Your task to perform on an android device: delete the emails in spam in the gmail app Image 0: 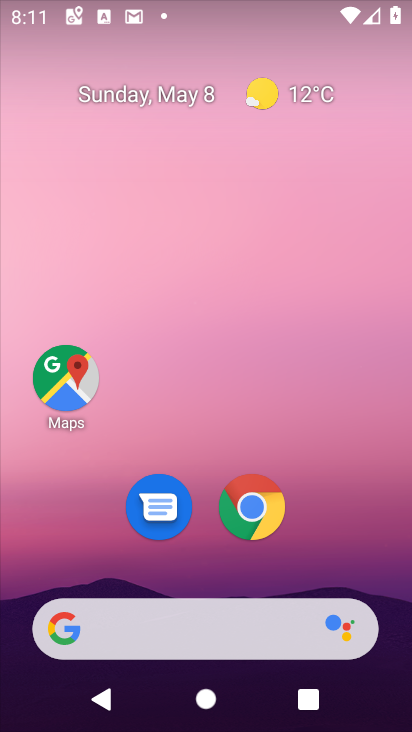
Step 0: drag from (170, 687) to (158, 30)
Your task to perform on an android device: delete the emails in spam in the gmail app Image 1: 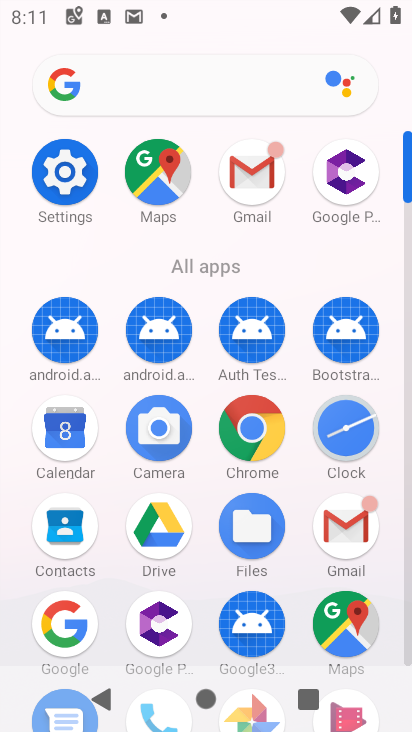
Step 1: click (245, 158)
Your task to perform on an android device: delete the emails in spam in the gmail app Image 2: 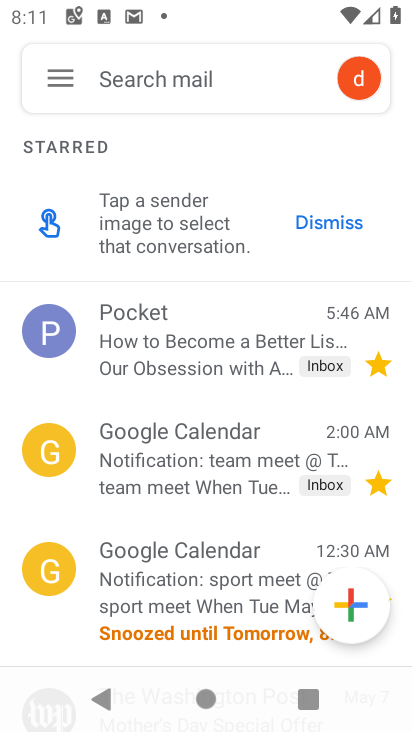
Step 2: click (52, 81)
Your task to perform on an android device: delete the emails in spam in the gmail app Image 3: 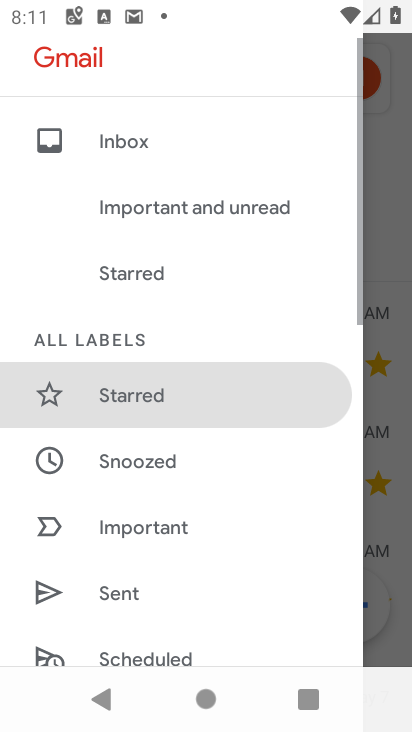
Step 3: drag from (197, 635) to (135, 86)
Your task to perform on an android device: delete the emails in spam in the gmail app Image 4: 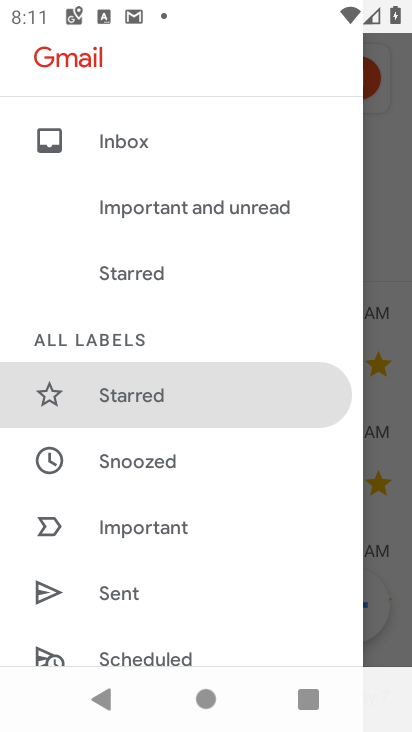
Step 4: drag from (241, 599) to (191, 2)
Your task to perform on an android device: delete the emails in spam in the gmail app Image 5: 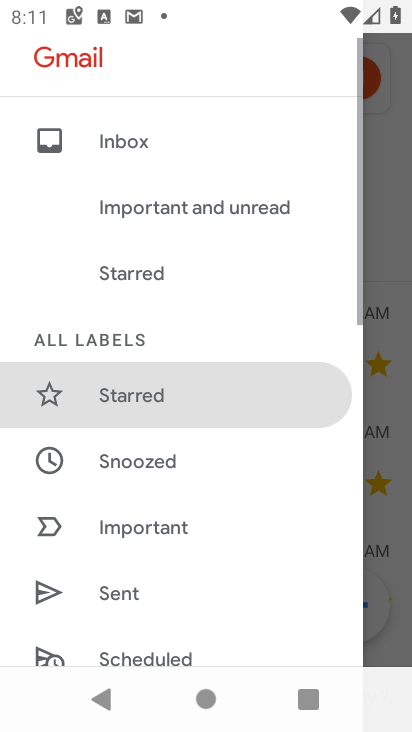
Step 5: drag from (182, 589) to (138, 26)
Your task to perform on an android device: delete the emails in spam in the gmail app Image 6: 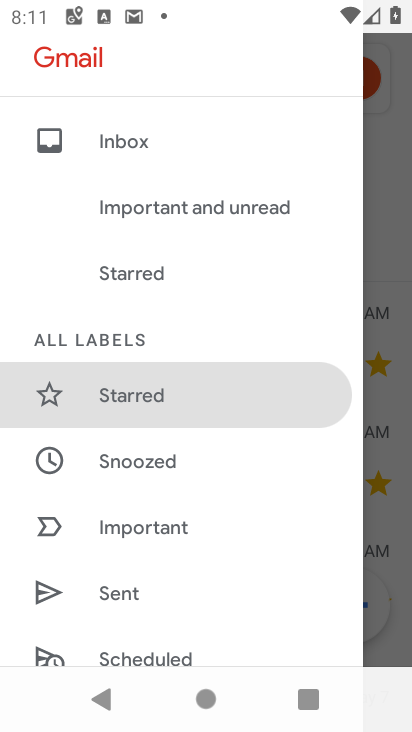
Step 6: drag from (223, 625) to (145, 8)
Your task to perform on an android device: delete the emails in spam in the gmail app Image 7: 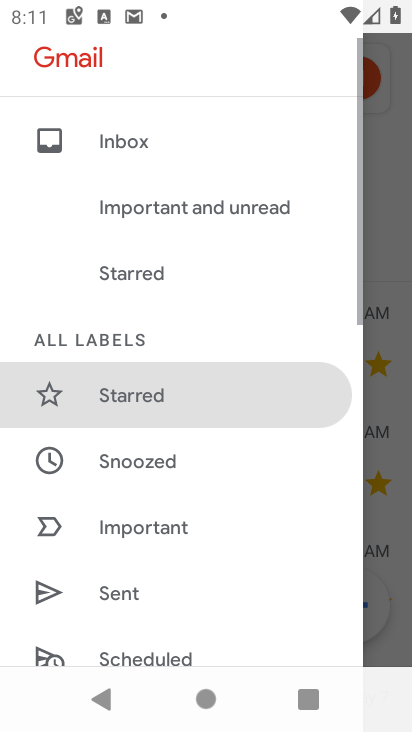
Step 7: drag from (179, 646) to (218, 13)
Your task to perform on an android device: delete the emails in spam in the gmail app Image 8: 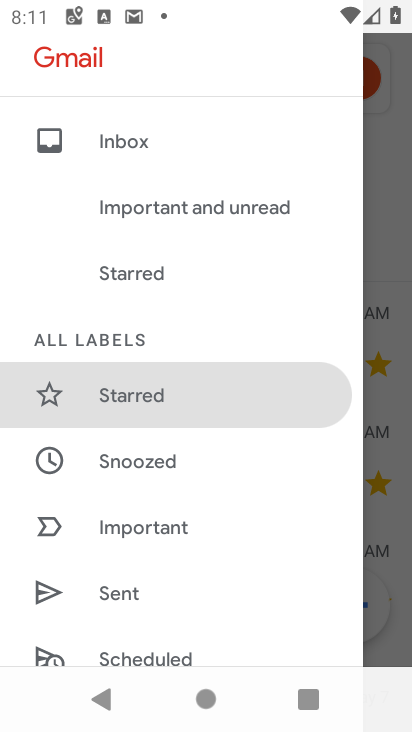
Step 8: drag from (221, 639) to (198, 29)
Your task to perform on an android device: delete the emails in spam in the gmail app Image 9: 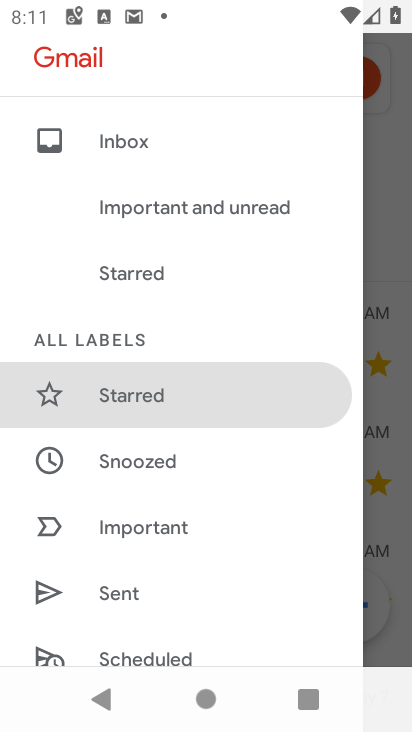
Step 9: drag from (78, 573) to (46, 42)
Your task to perform on an android device: delete the emails in spam in the gmail app Image 10: 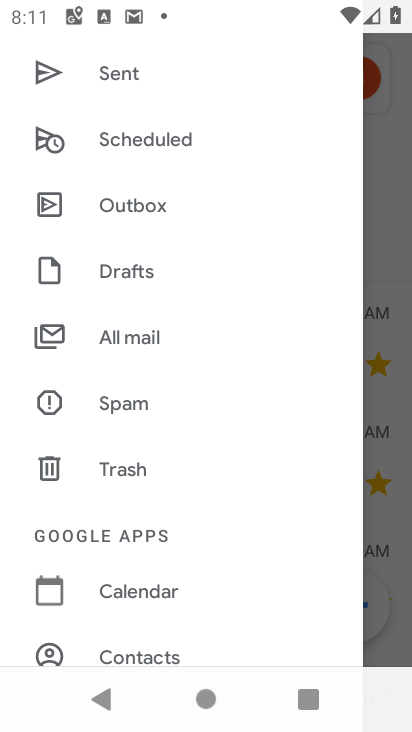
Step 10: click (143, 410)
Your task to perform on an android device: delete the emails in spam in the gmail app Image 11: 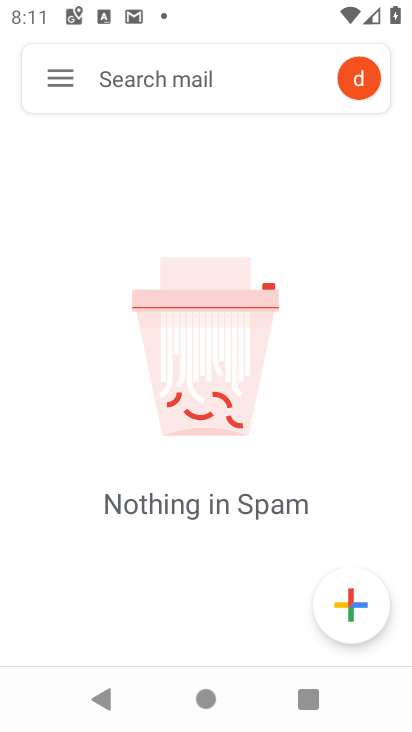
Step 11: task complete